Your task to perform on an android device: Open calendar and show me the third week of next month Image 0: 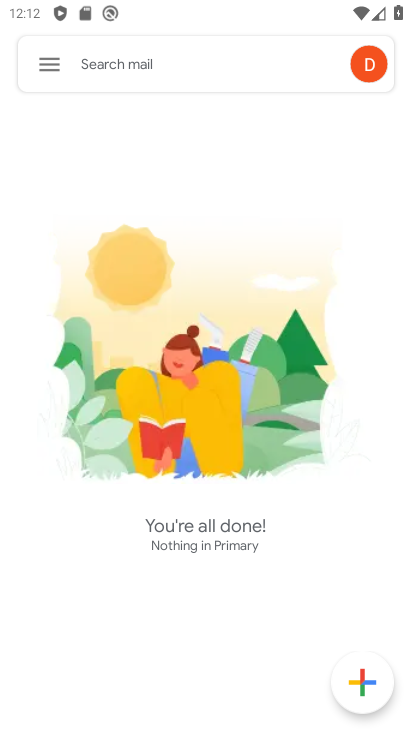
Step 0: press home button
Your task to perform on an android device: Open calendar and show me the third week of next month Image 1: 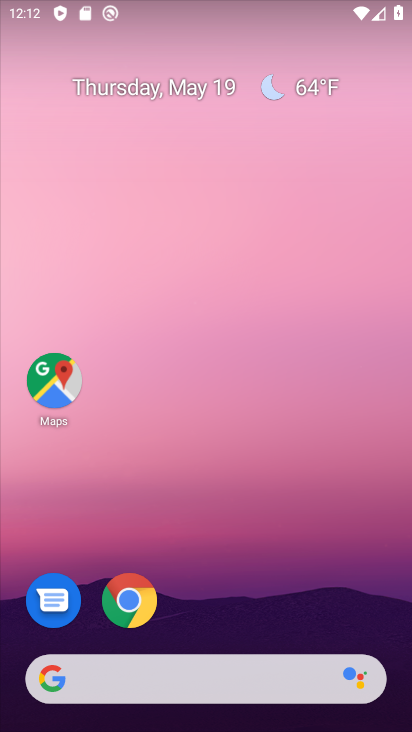
Step 1: drag from (198, 646) to (168, 14)
Your task to perform on an android device: Open calendar and show me the third week of next month Image 2: 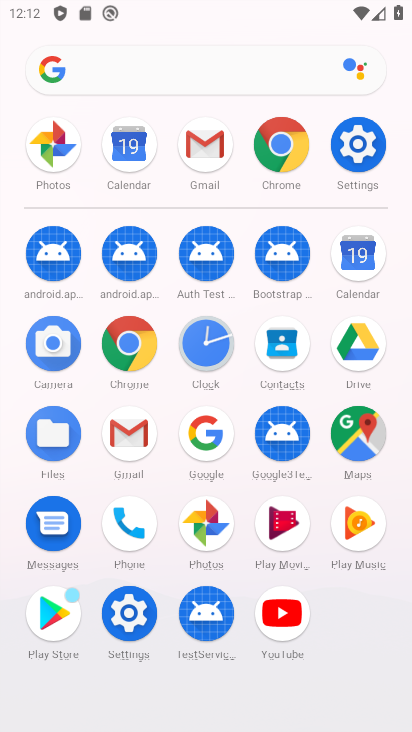
Step 2: click (361, 249)
Your task to perform on an android device: Open calendar and show me the third week of next month Image 3: 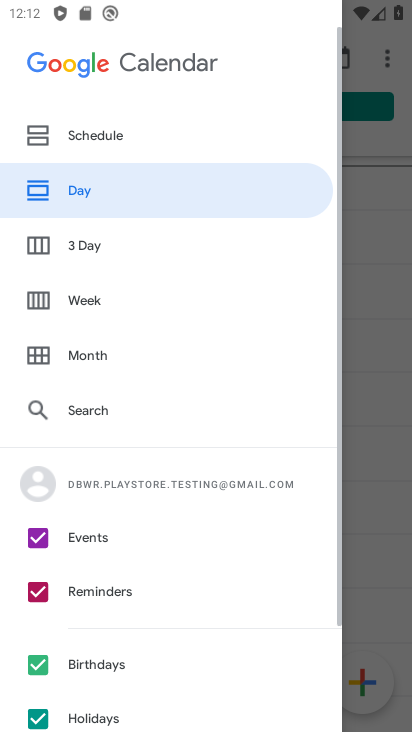
Step 3: click (105, 298)
Your task to perform on an android device: Open calendar and show me the third week of next month Image 4: 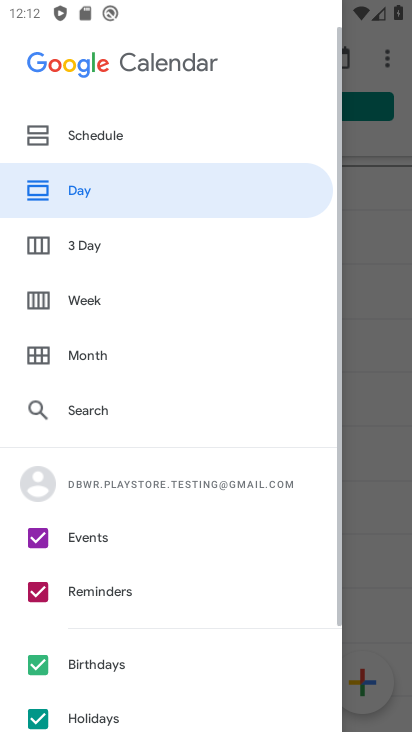
Step 4: click (106, 295)
Your task to perform on an android device: Open calendar and show me the third week of next month Image 5: 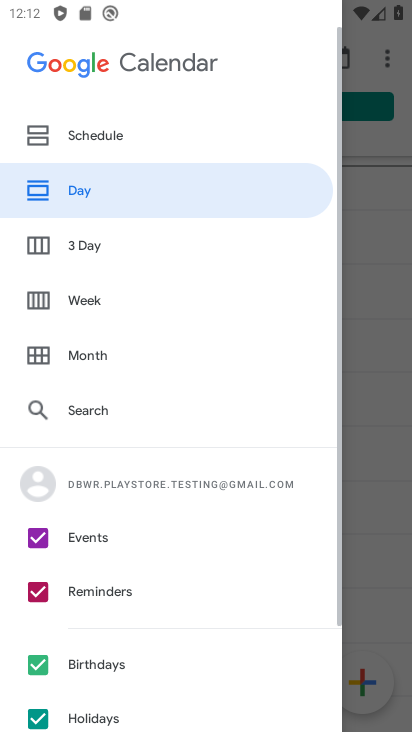
Step 5: click (77, 297)
Your task to perform on an android device: Open calendar and show me the third week of next month Image 6: 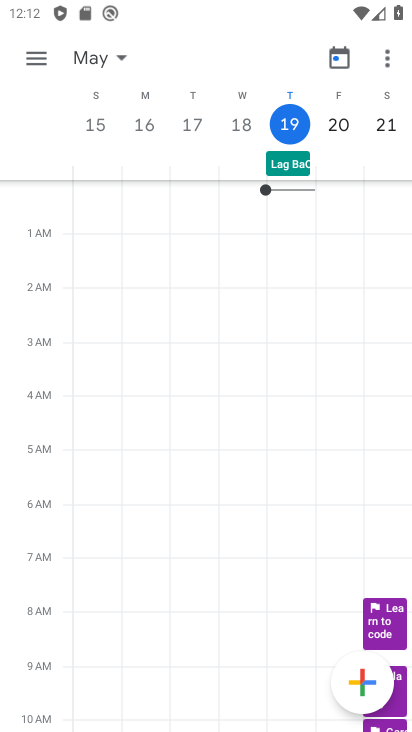
Step 6: task complete